Your task to perform on an android device: Open Google Maps Image 0: 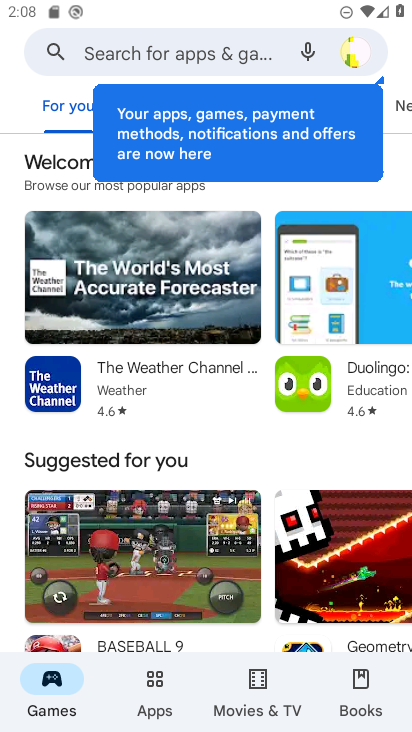
Step 0: press home button
Your task to perform on an android device: Open Google Maps Image 1: 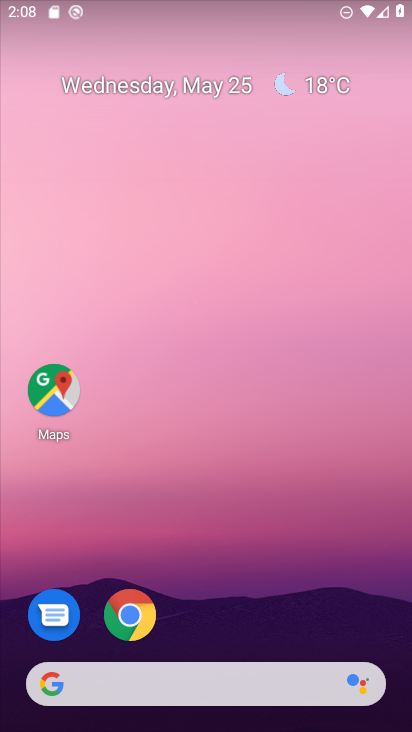
Step 1: click (57, 392)
Your task to perform on an android device: Open Google Maps Image 2: 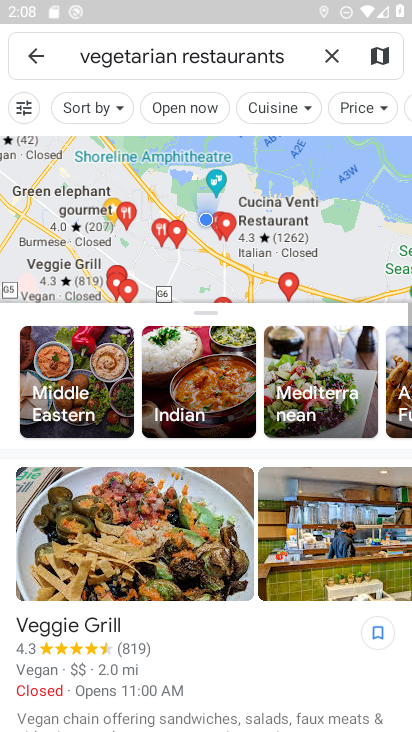
Step 2: click (334, 54)
Your task to perform on an android device: Open Google Maps Image 3: 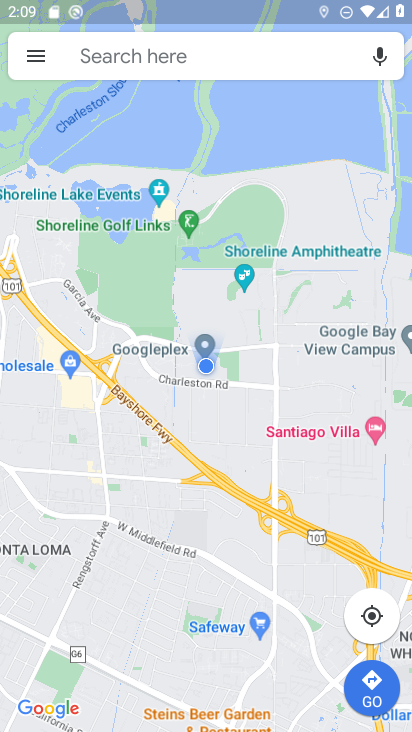
Step 3: task complete